Your task to perform on an android device: refresh tabs in the chrome app Image 0: 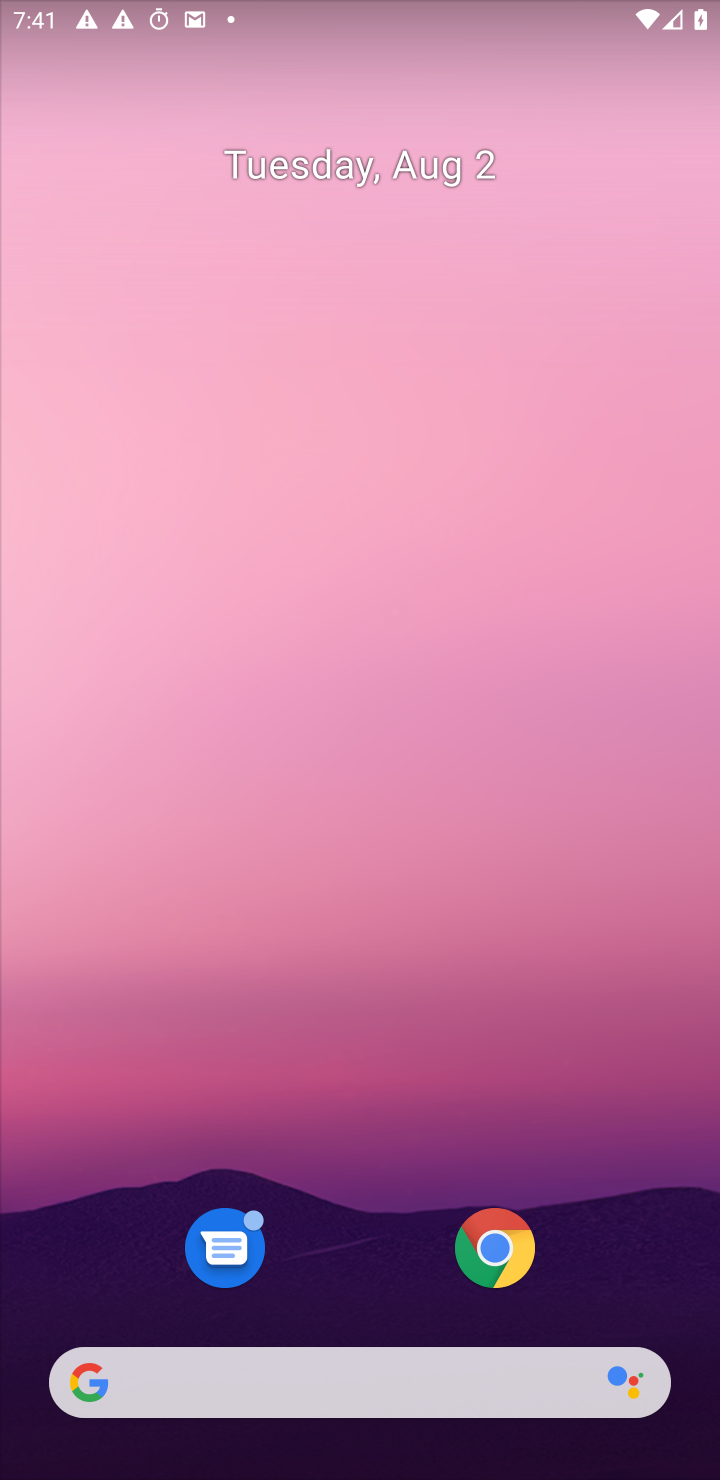
Step 0: click (632, 194)
Your task to perform on an android device: refresh tabs in the chrome app Image 1: 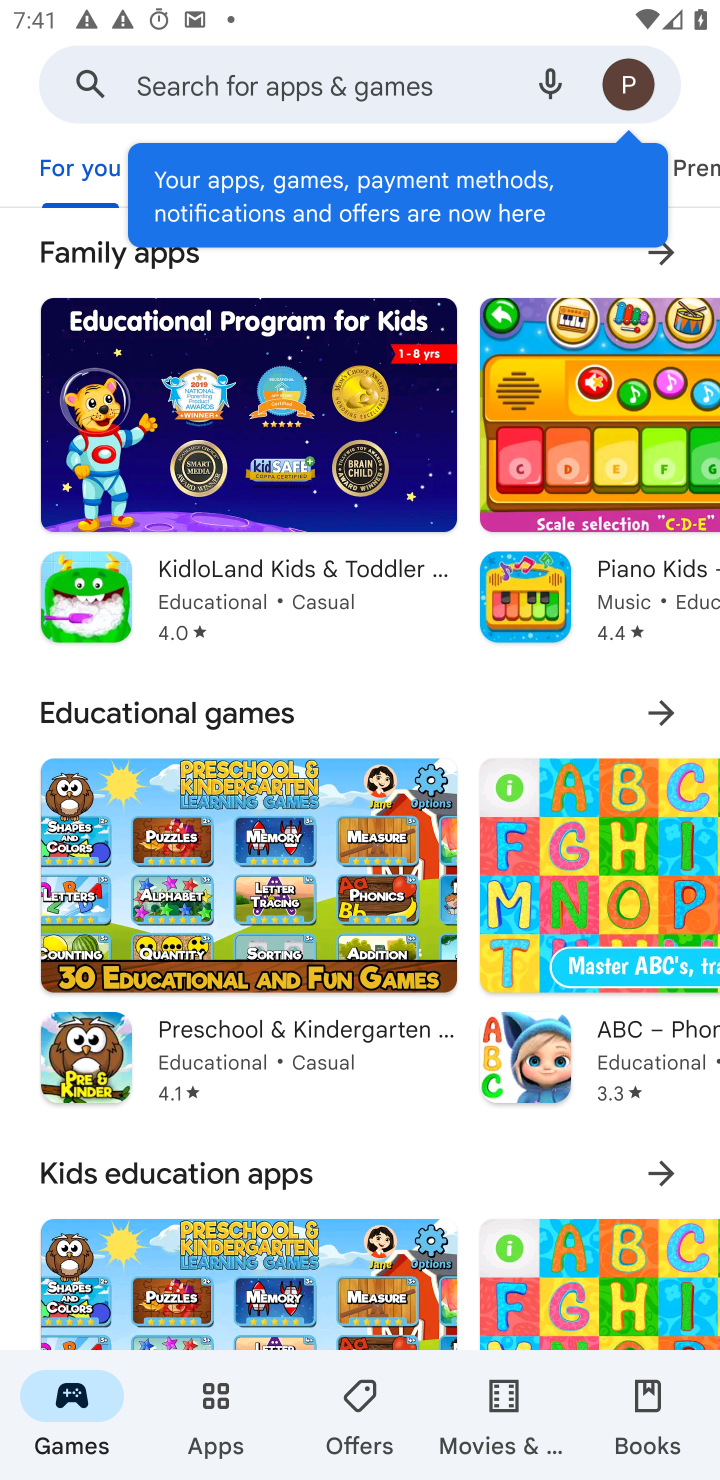
Step 1: press home button
Your task to perform on an android device: refresh tabs in the chrome app Image 2: 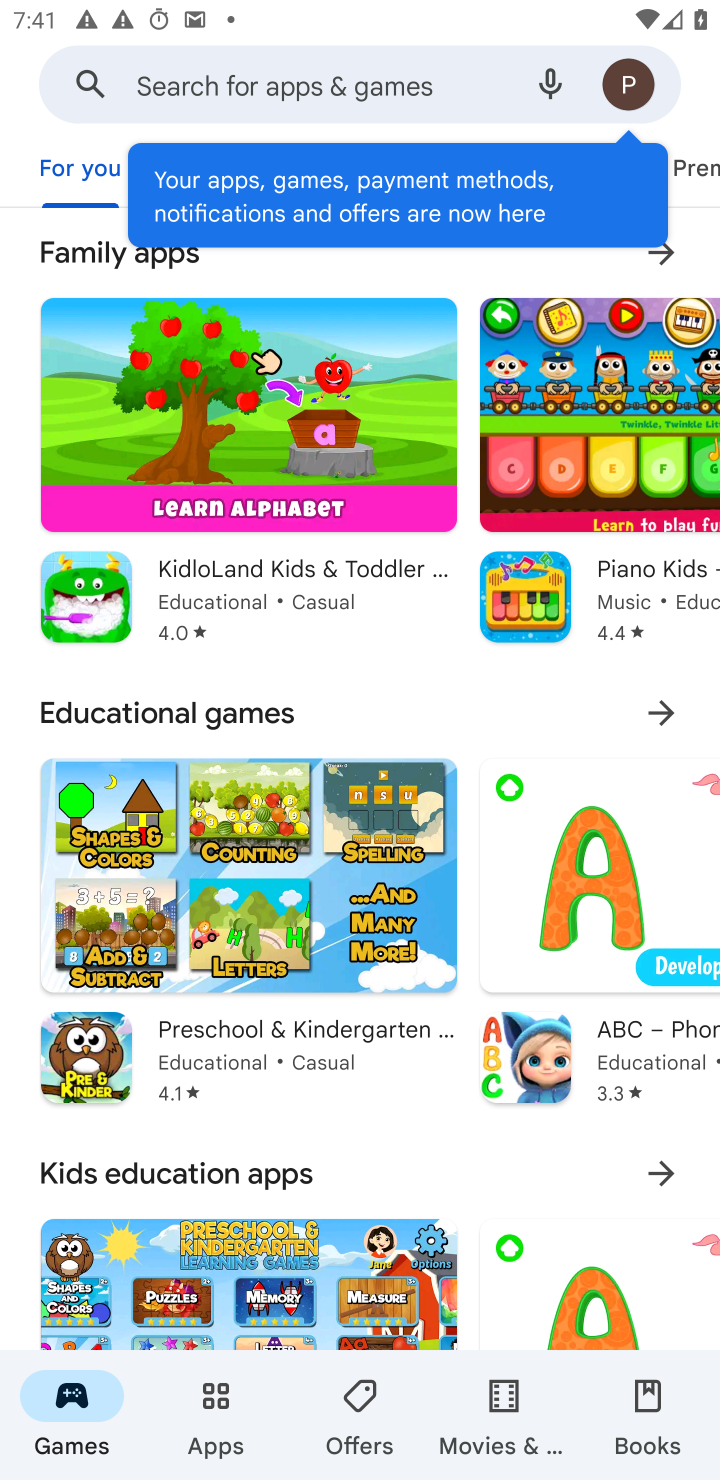
Step 2: drag from (342, 1365) to (406, 394)
Your task to perform on an android device: refresh tabs in the chrome app Image 3: 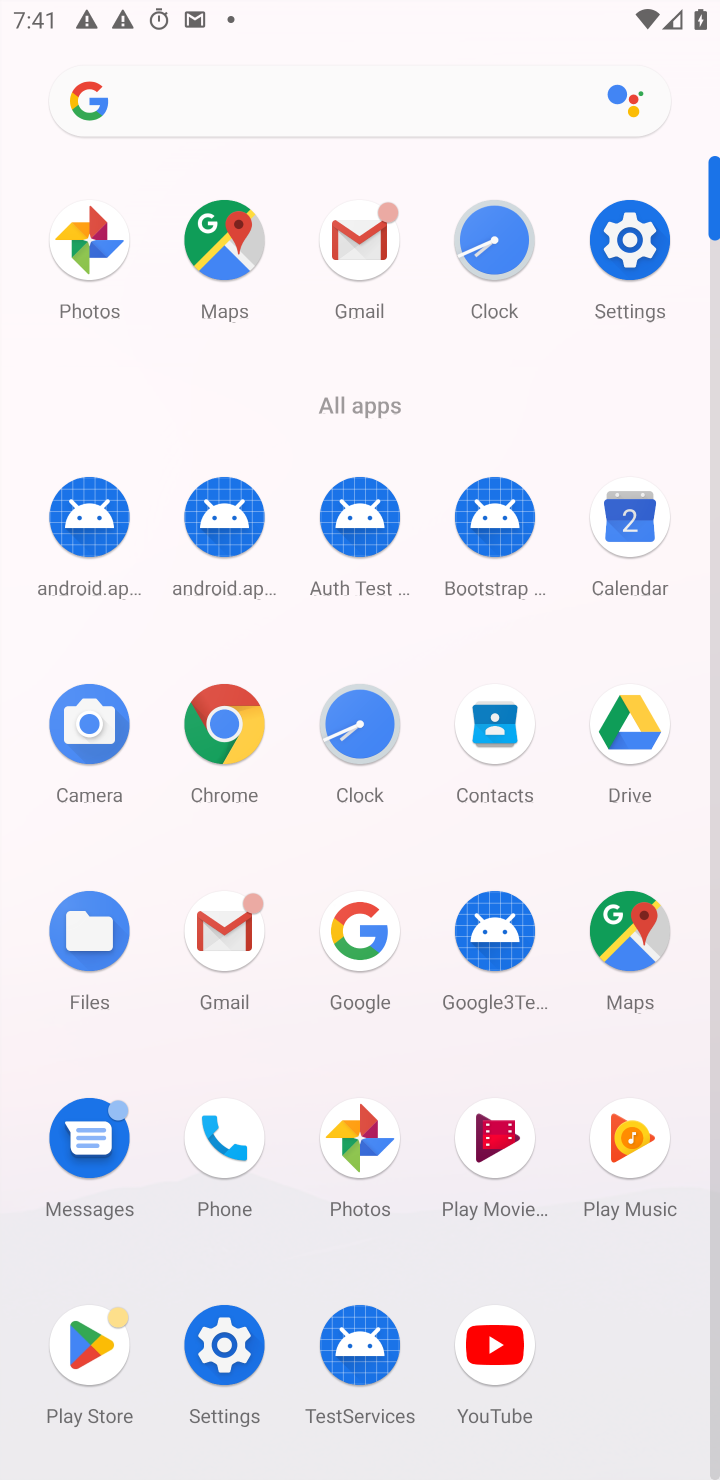
Step 3: click (236, 704)
Your task to perform on an android device: refresh tabs in the chrome app Image 4: 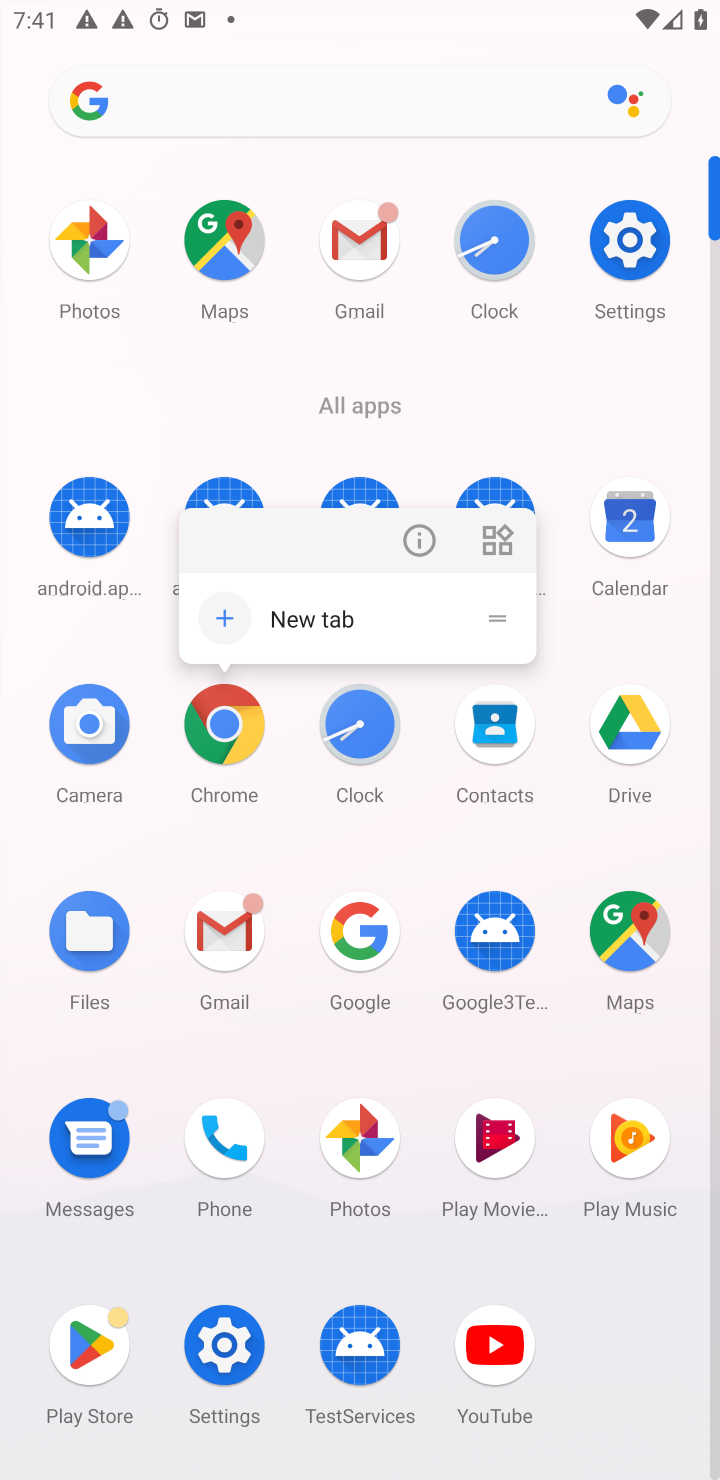
Step 4: click (415, 527)
Your task to perform on an android device: refresh tabs in the chrome app Image 5: 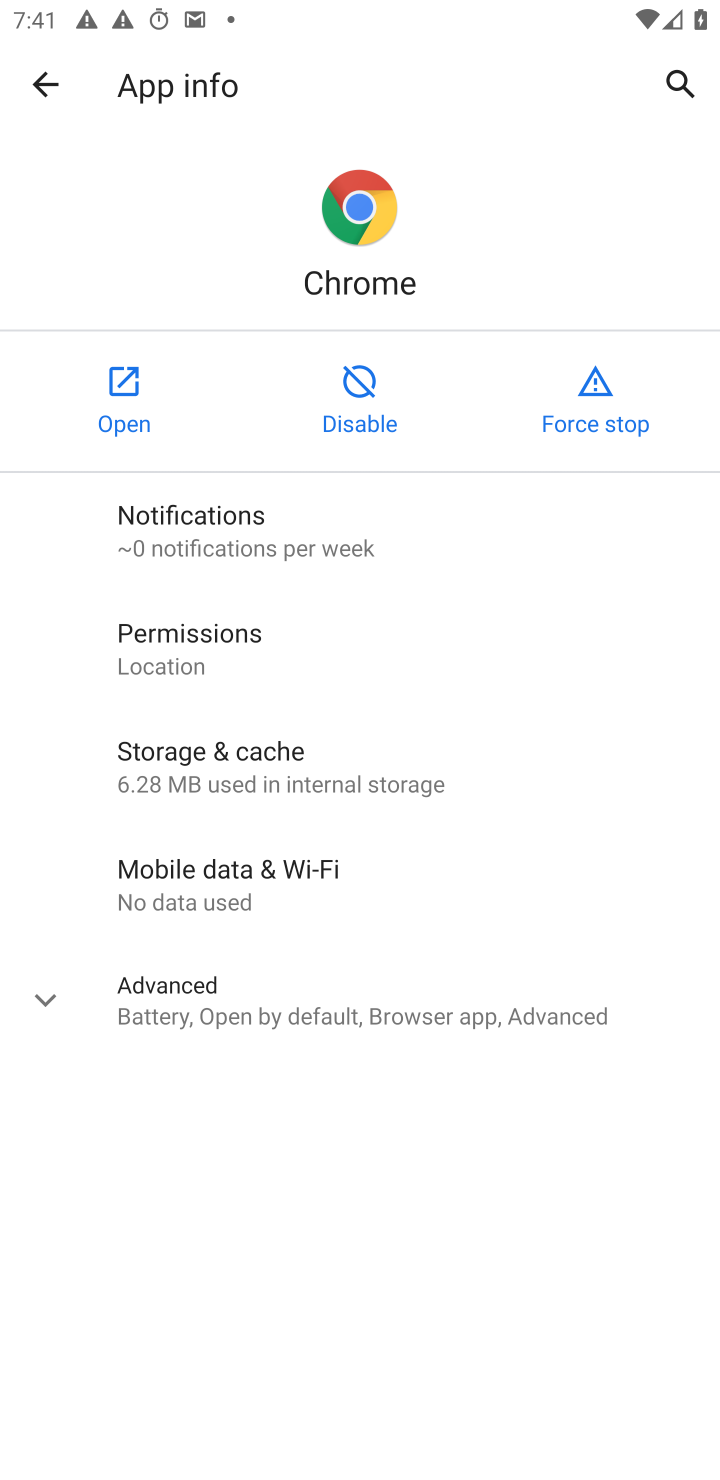
Step 5: click (55, 404)
Your task to perform on an android device: refresh tabs in the chrome app Image 6: 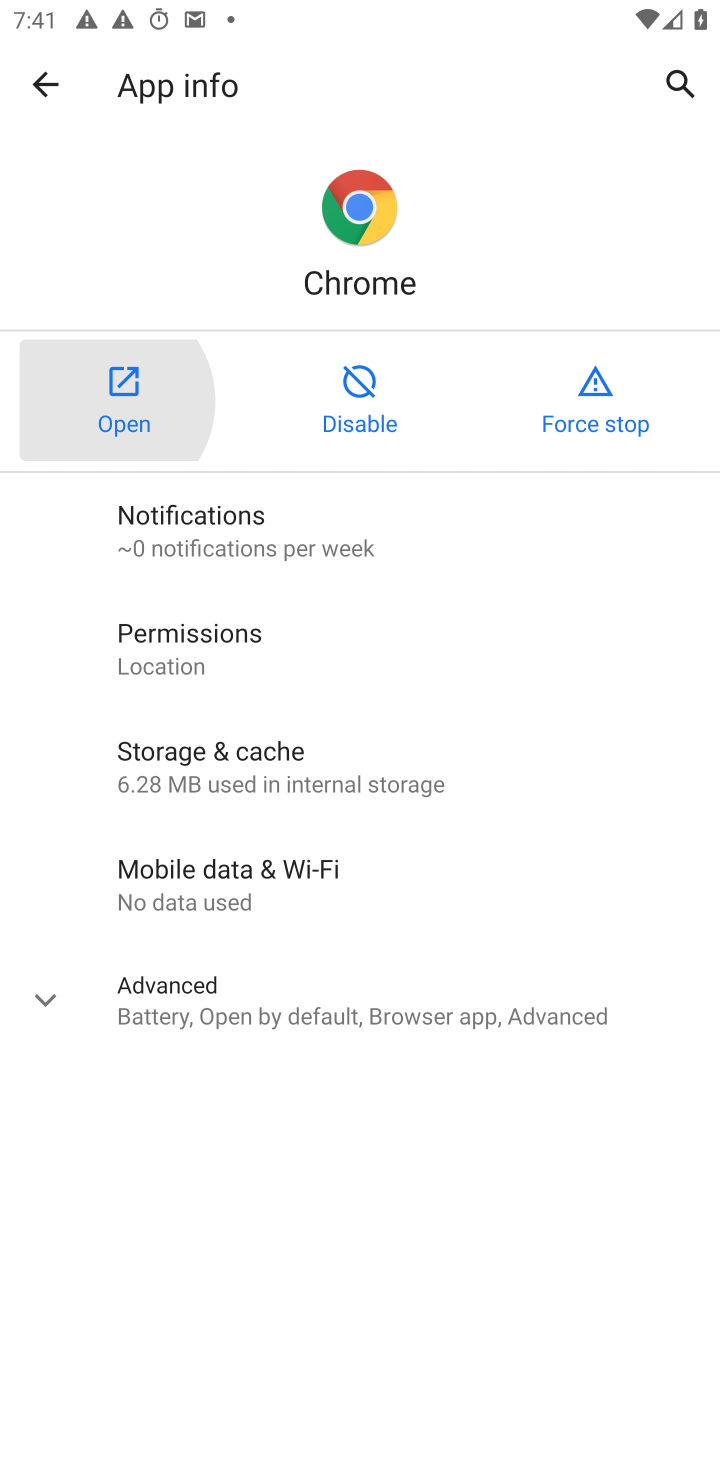
Step 6: click (91, 388)
Your task to perform on an android device: refresh tabs in the chrome app Image 7: 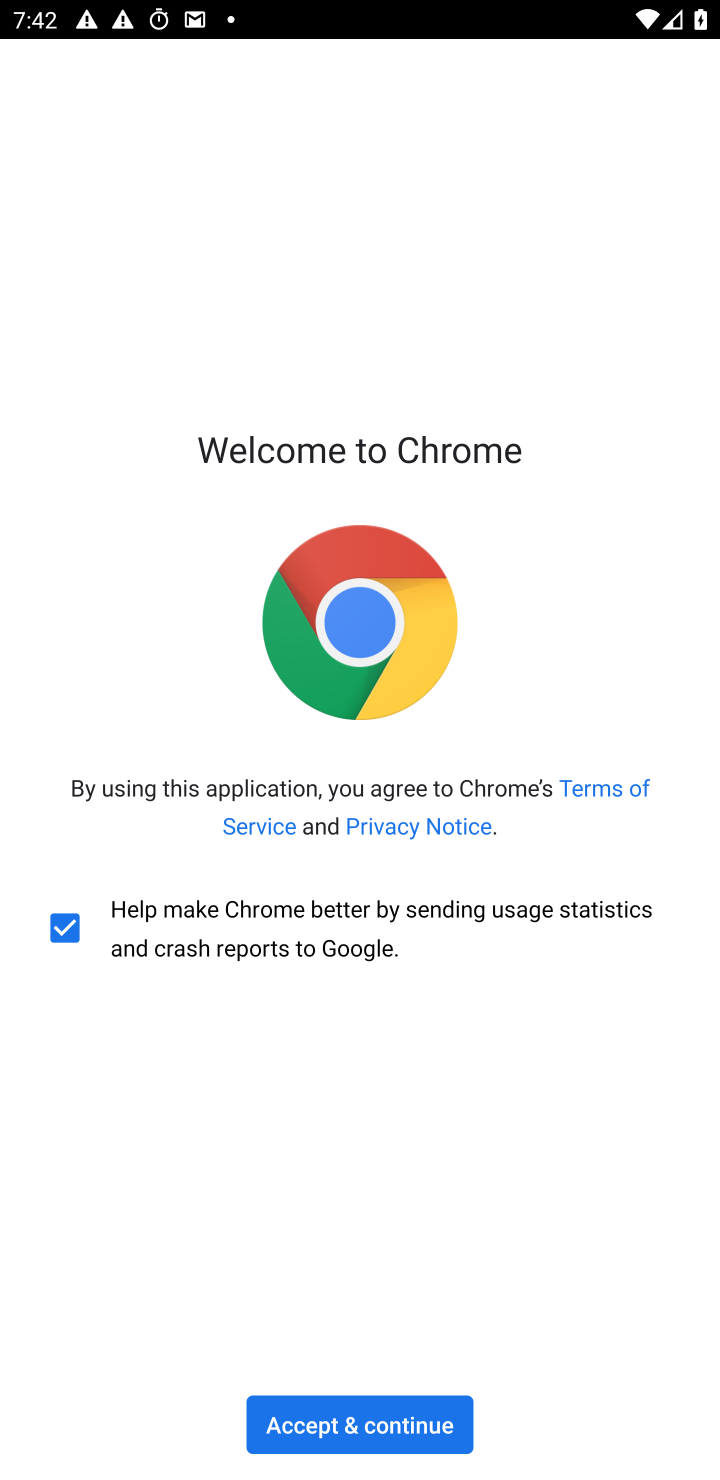
Step 7: press home button
Your task to perform on an android device: refresh tabs in the chrome app Image 8: 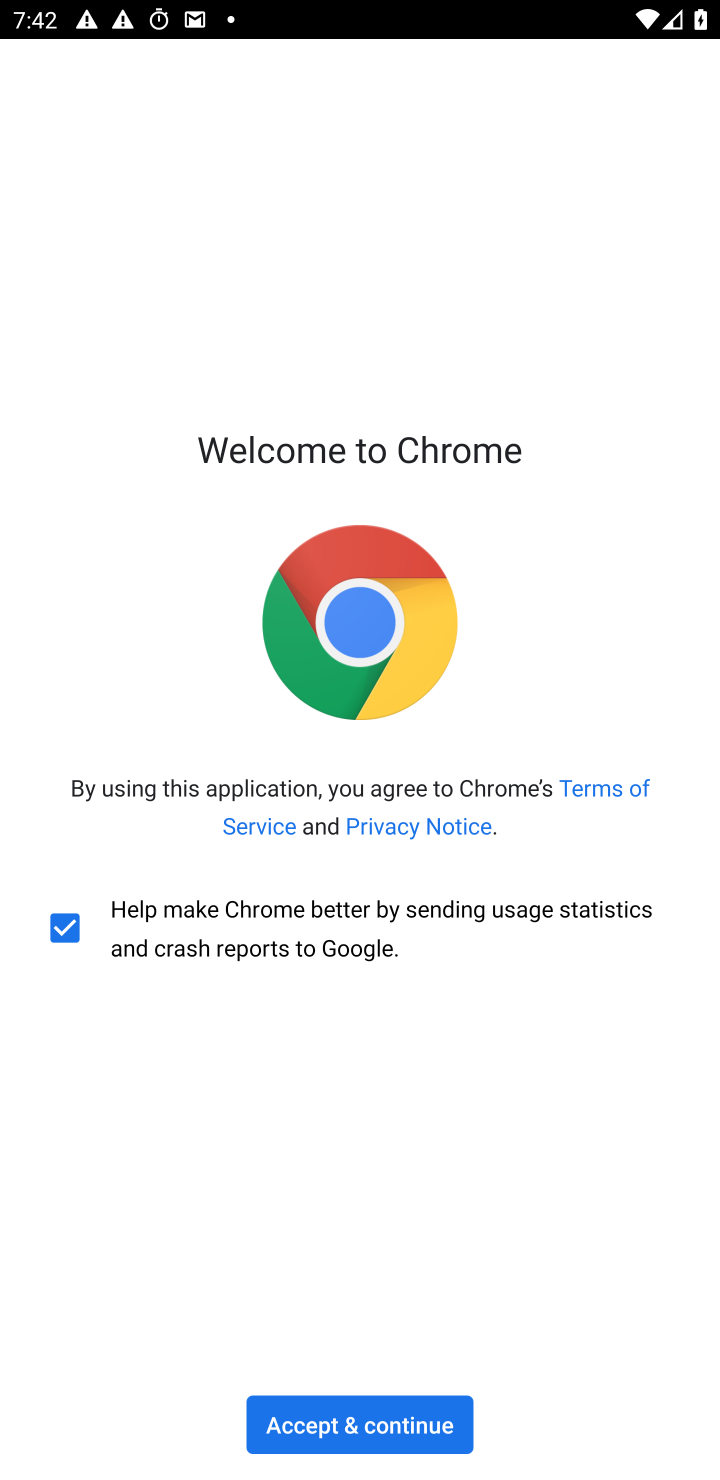
Step 8: press home button
Your task to perform on an android device: refresh tabs in the chrome app Image 9: 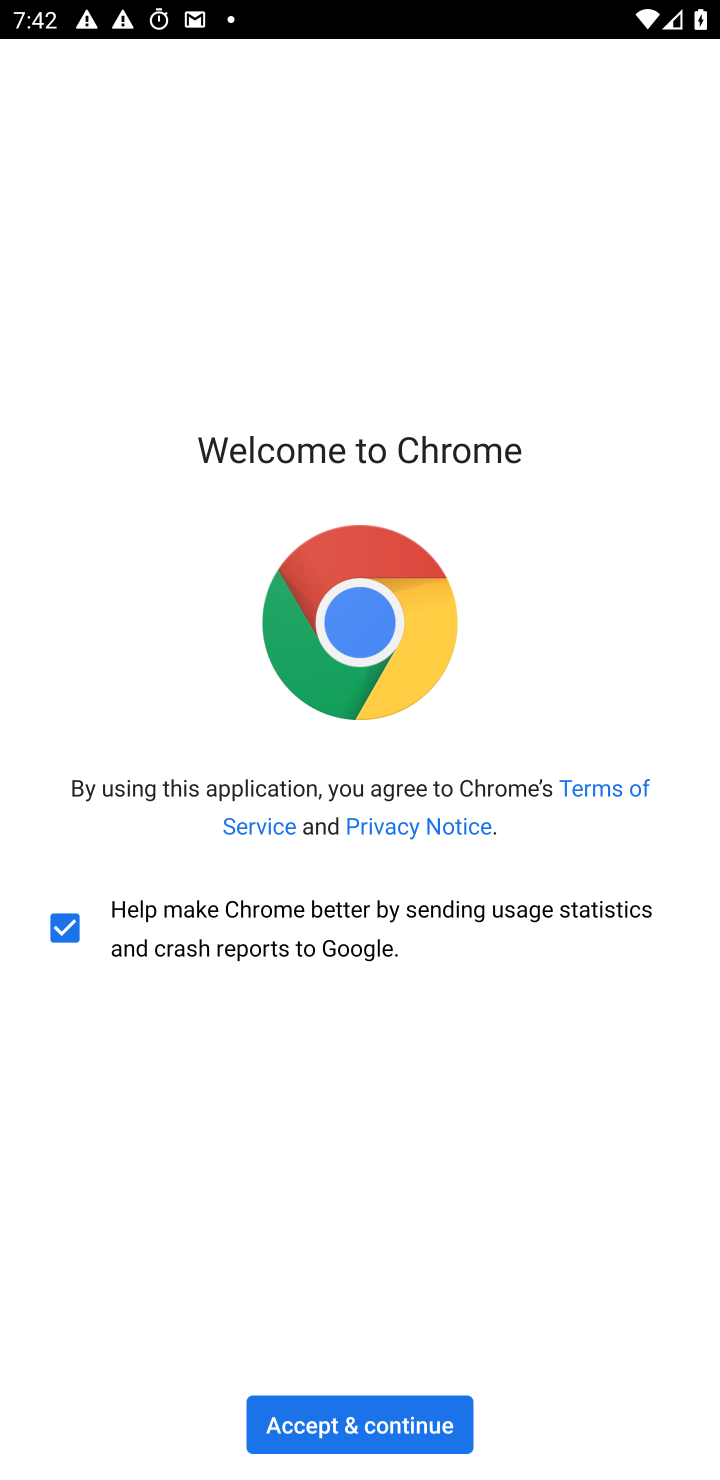
Step 9: click (493, 349)
Your task to perform on an android device: refresh tabs in the chrome app Image 10: 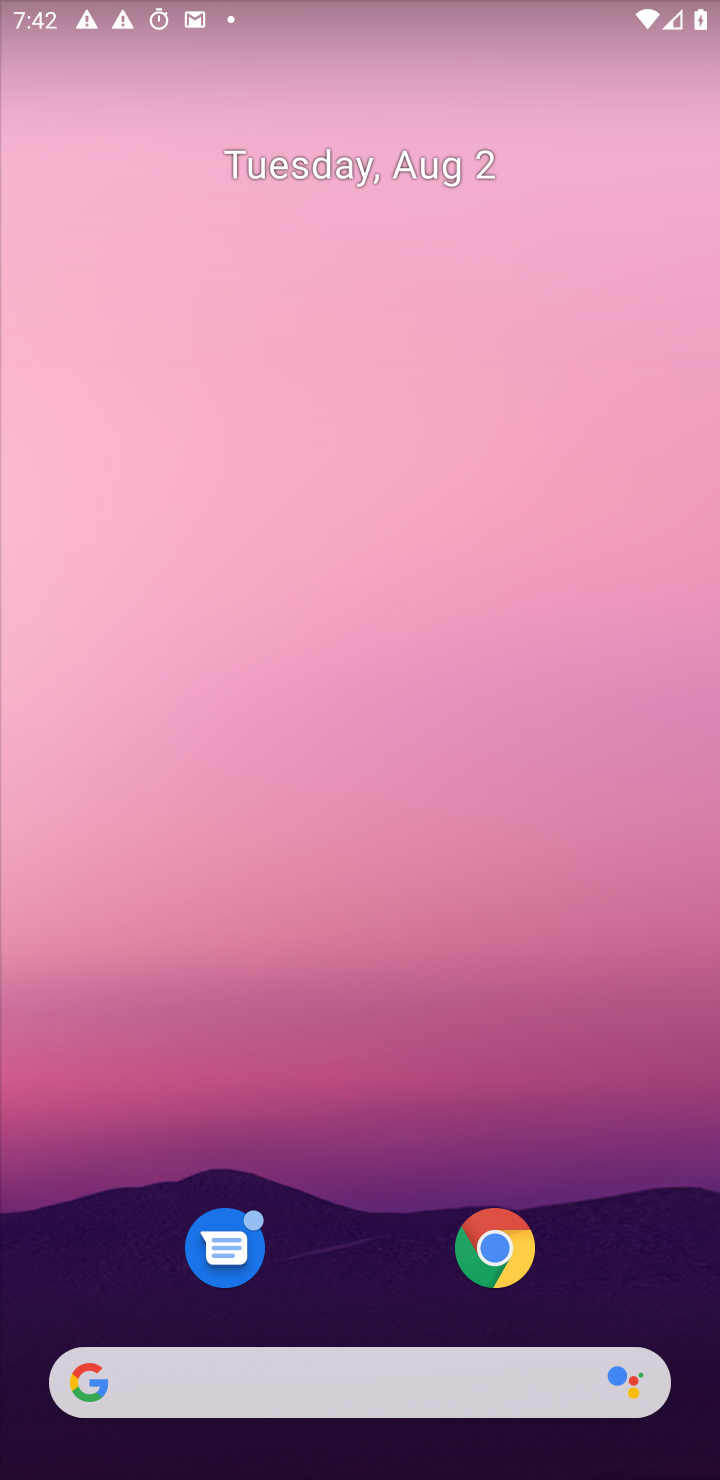
Step 10: drag from (346, 1278) to (479, 334)
Your task to perform on an android device: refresh tabs in the chrome app Image 11: 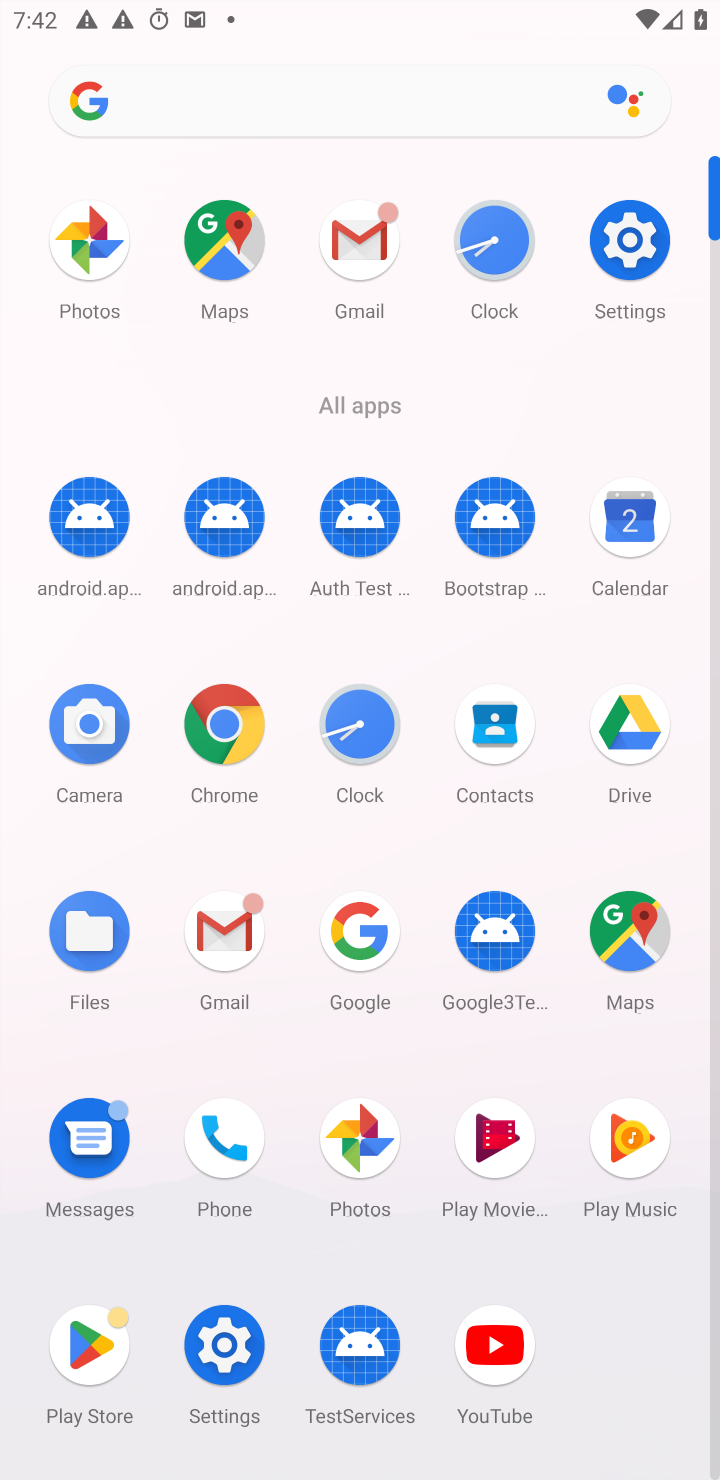
Step 11: click (211, 723)
Your task to perform on an android device: refresh tabs in the chrome app Image 12: 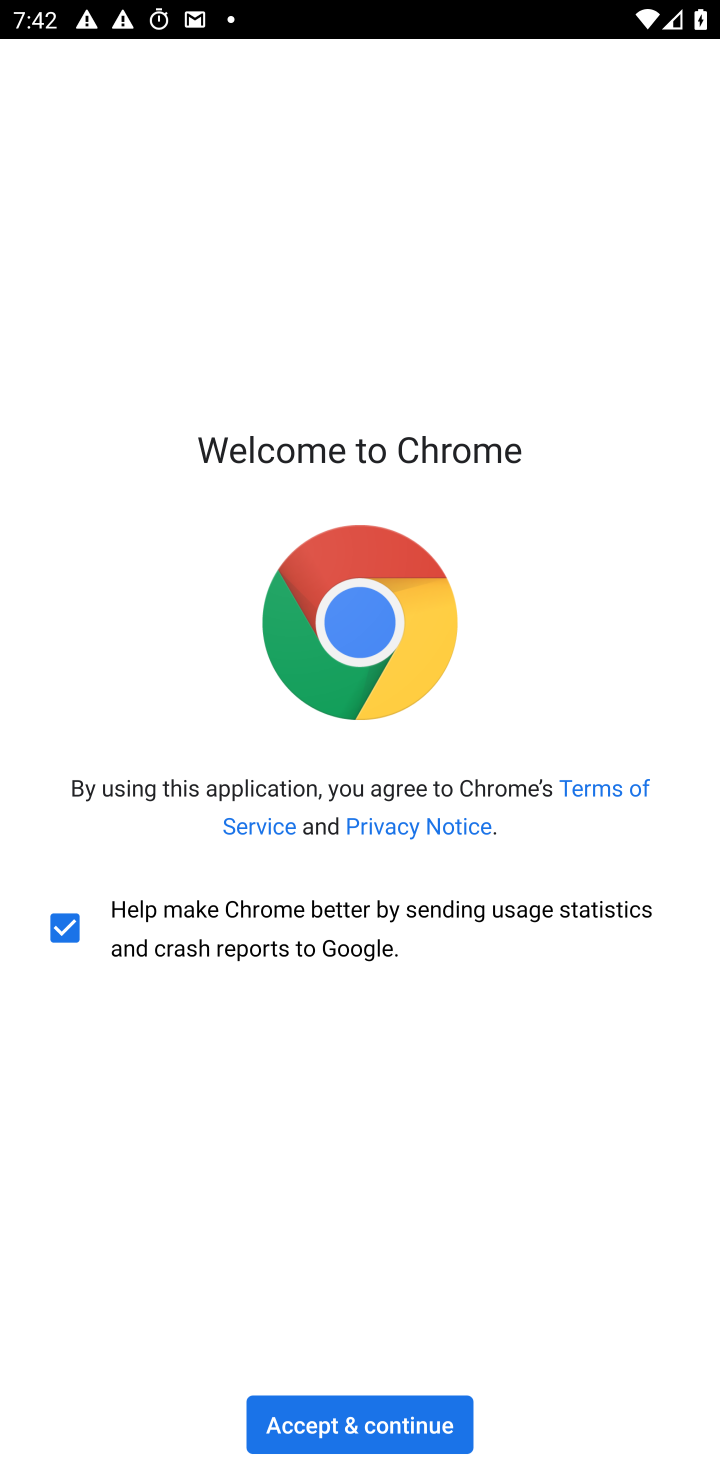
Step 12: click (277, 1422)
Your task to perform on an android device: refresh tabs in the chrome app Image 13: 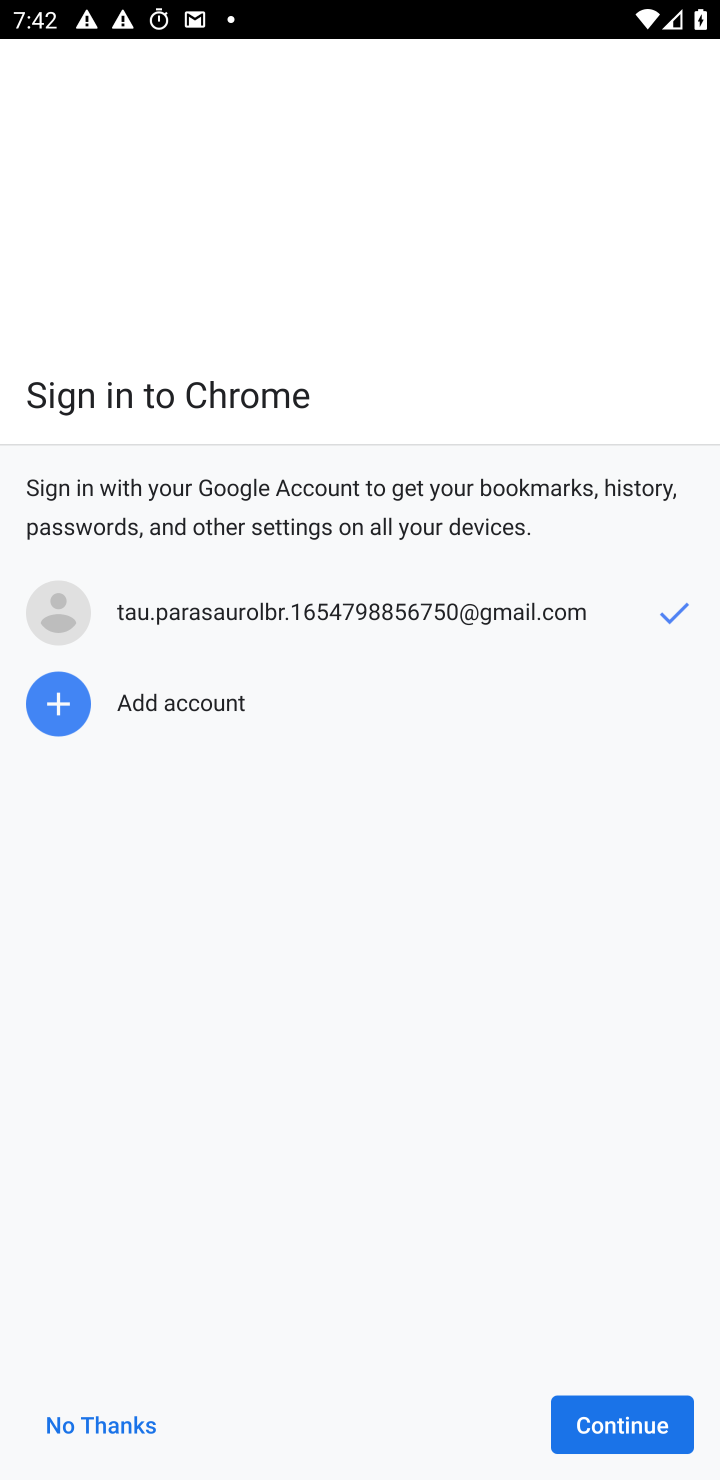
Step 13: click (580, 1411)
Your task to perform on an android device: refresh tabs in the chrome app Image 14: 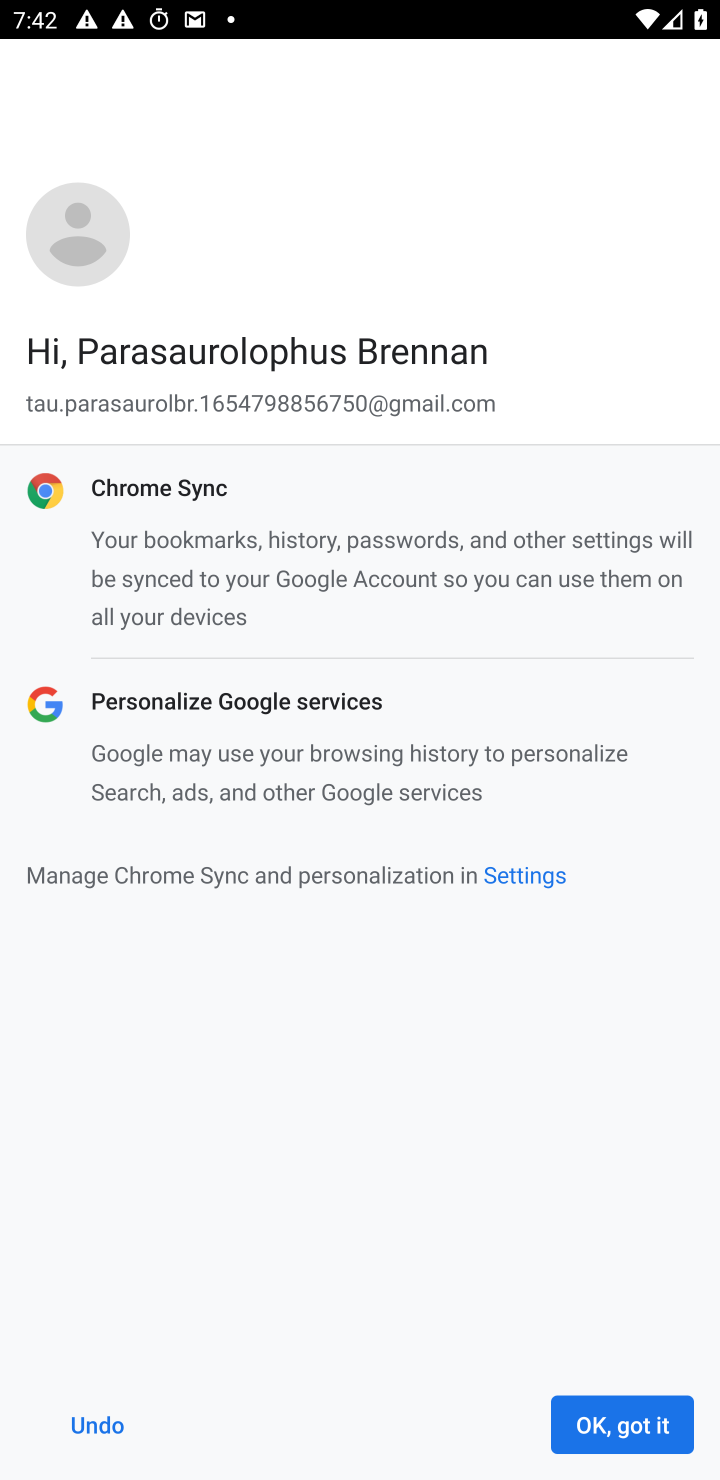
Step 14: click (635, 1414)
Your task to perform on an android device: refresh tabs in the chrome app Image 15: 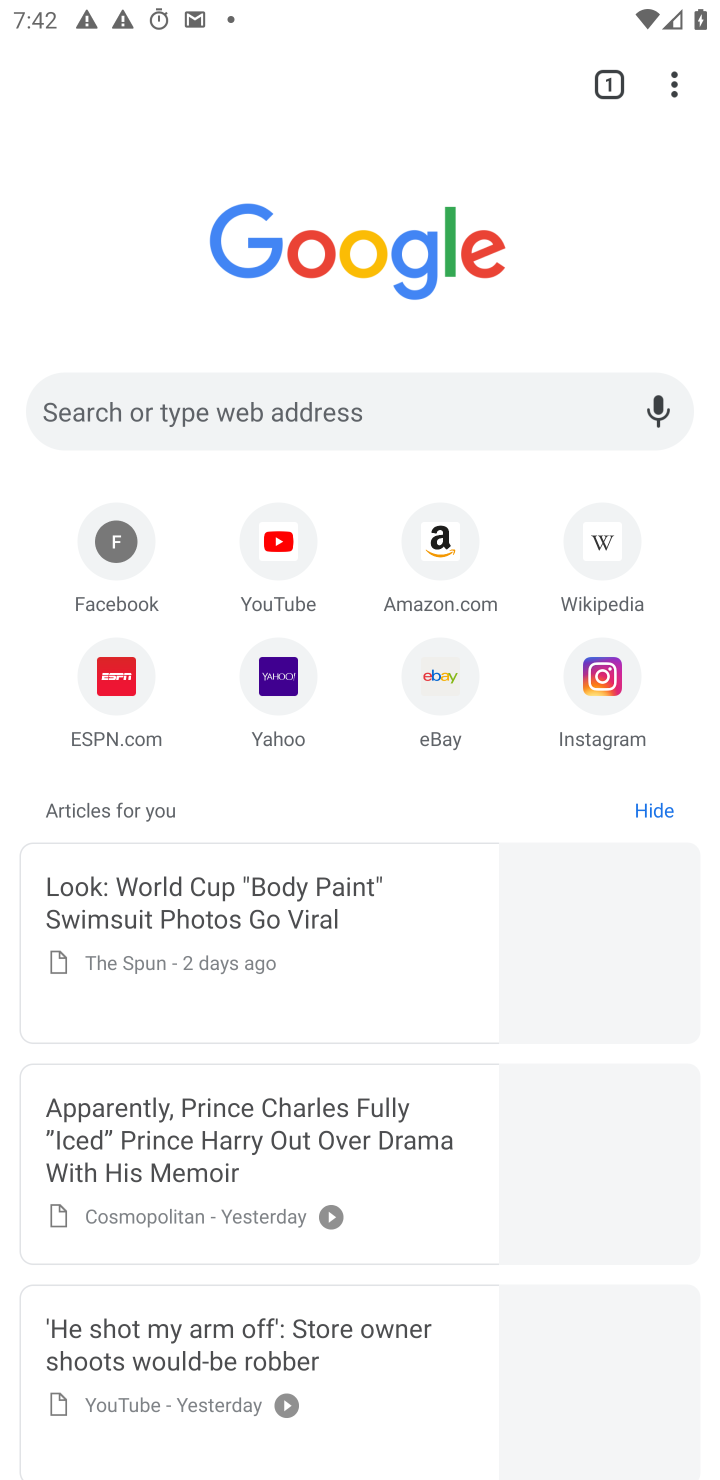
Step 15: click (677, 80)
Your task to perform on an android device: refresh tabs in the chrome app Image 16: 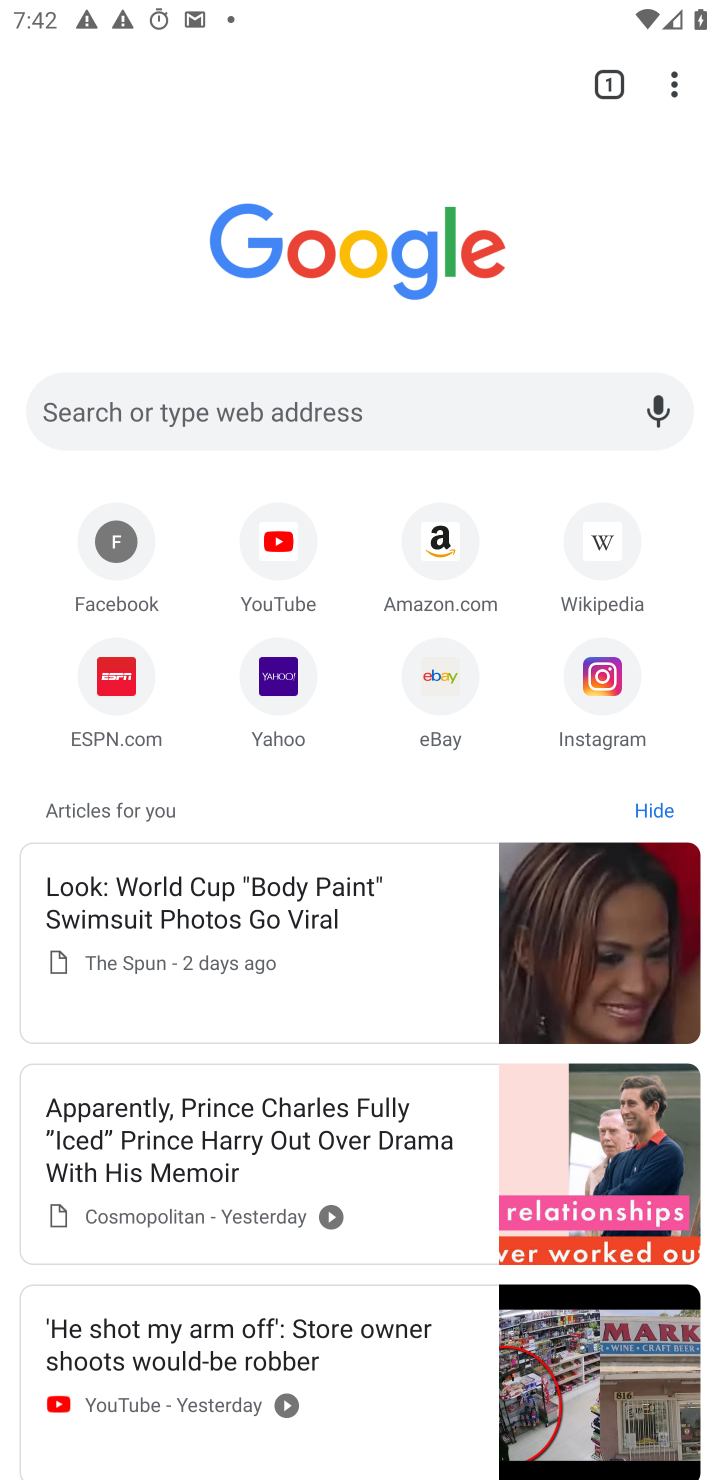
Step 16: task complete